Your task to perform on an android device: set the timer Image 0: 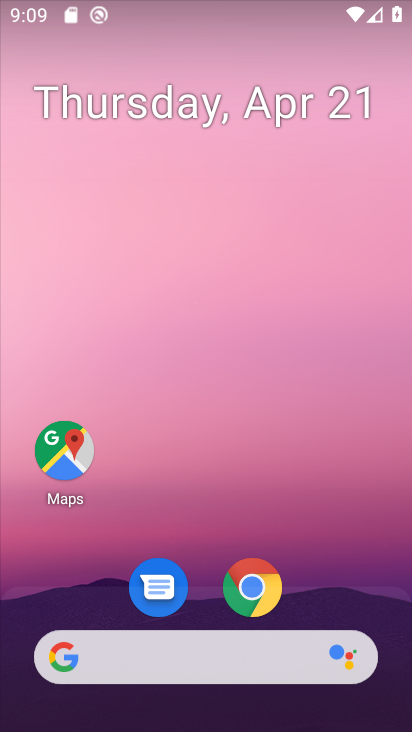
Step 0: drag from (344, 528) to (381, 291)
Your task to perform on an android device: set the timer Image 1: 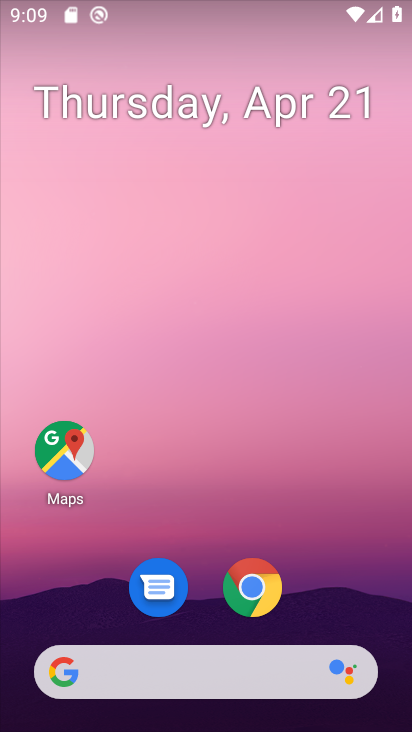
Step 1: drag from (323, 396) to (354, 117)
Your task to perform on an android device: set the timer Image 2: 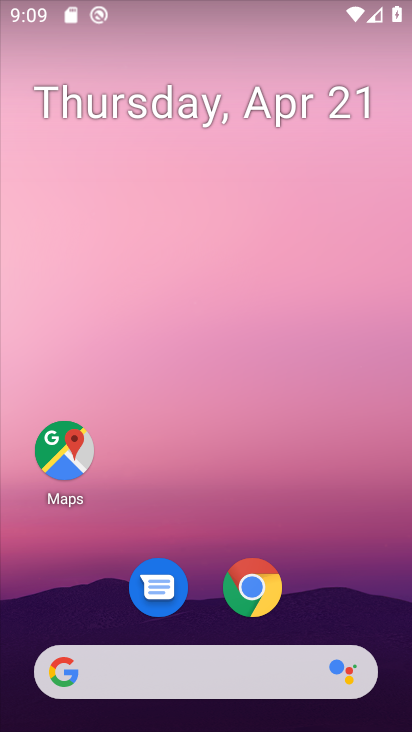
Step 2: drag from (349, 579) to (325, 168)
Your task to perform on an android device: set the timer Image 3: 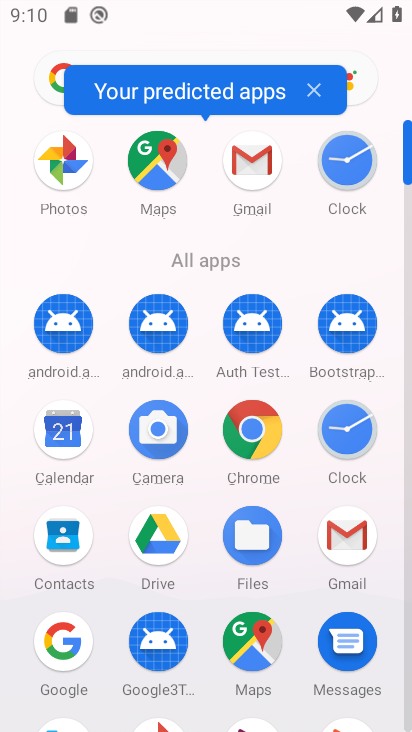
Step 3: click (363, 443)
Your task to perform on an android device: set the timer Image 4: 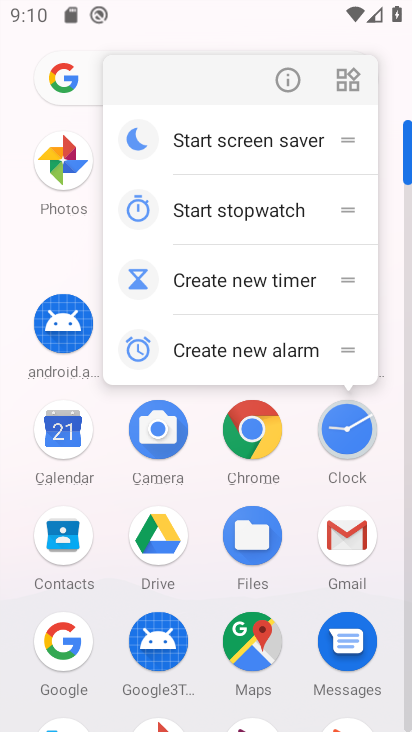
Step 4: click (347, 448)
Your task to perform on an android device: set the timer Image 5: 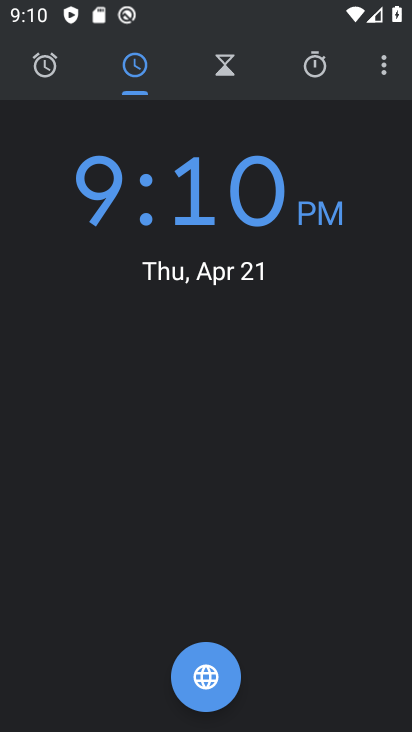
Step 5: click (225, 60)
Your task to perform on an android device: set the timer Image 6: 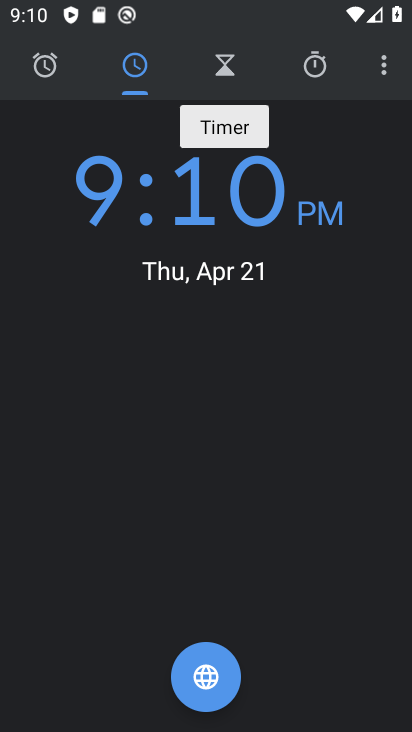
Step 6: click (230, 68)
Your task to perform on an android device: set the timer Image 7: 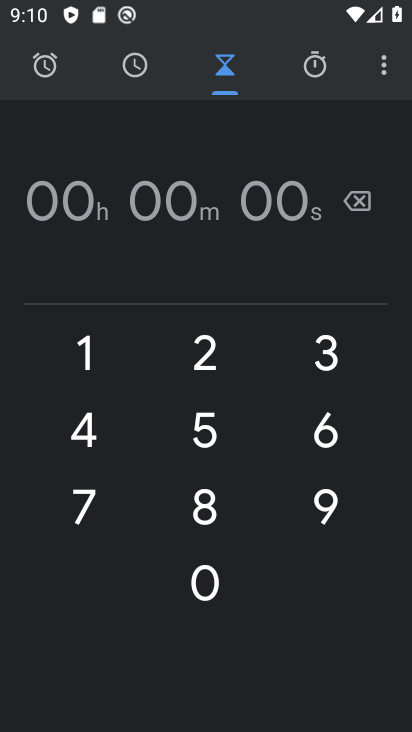
Step 7: click (97, 348)
Your task to perform on an android device: set the timer Image 8: 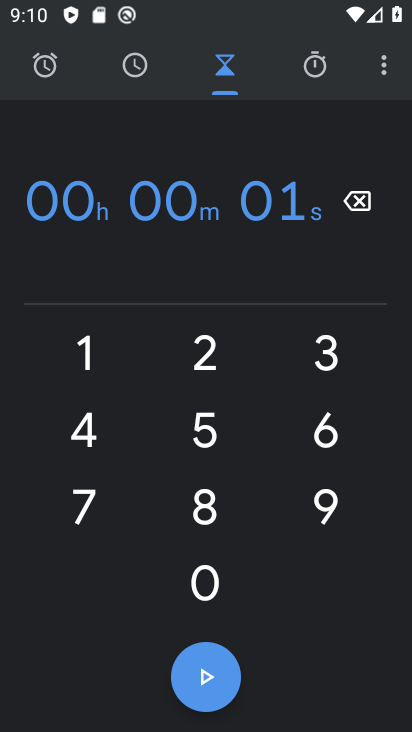
Step 8: click (211, 435)
Your task to perform on an android device: set the timer Image 9: 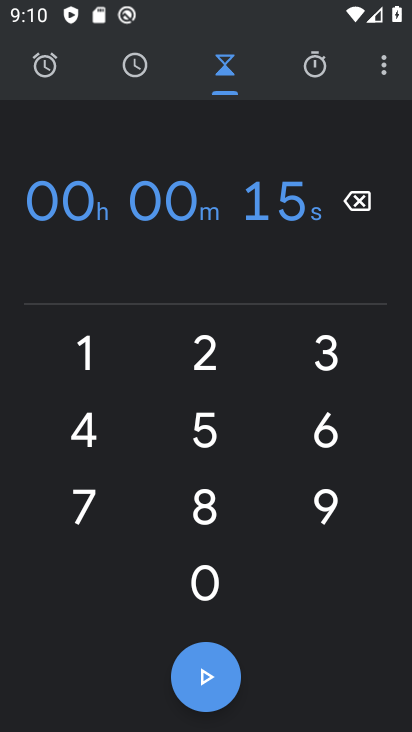
Step 9: click (195, 684)
Your task to perform on an android device: set the timer Image 10: 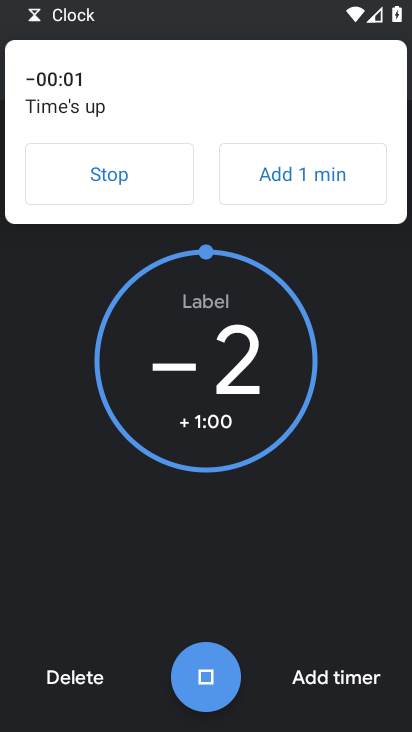
Step 10: click (113, 173)
Your task to perform on an android device: set the timer Image 11: 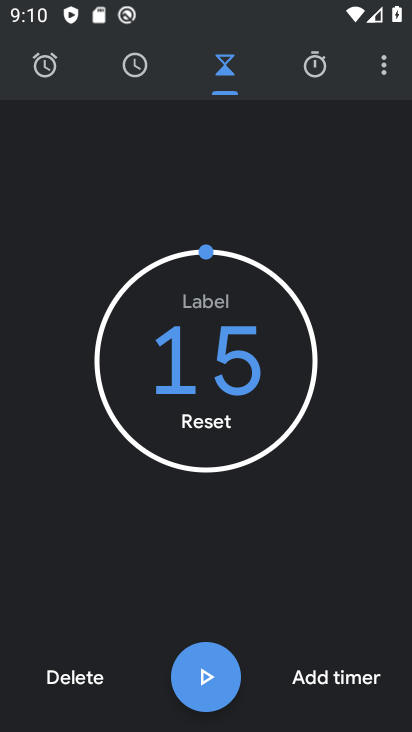
Step 11: task complete